Your task to perform on an android device: Open calendar and show me the fourth week of next month Image 0: 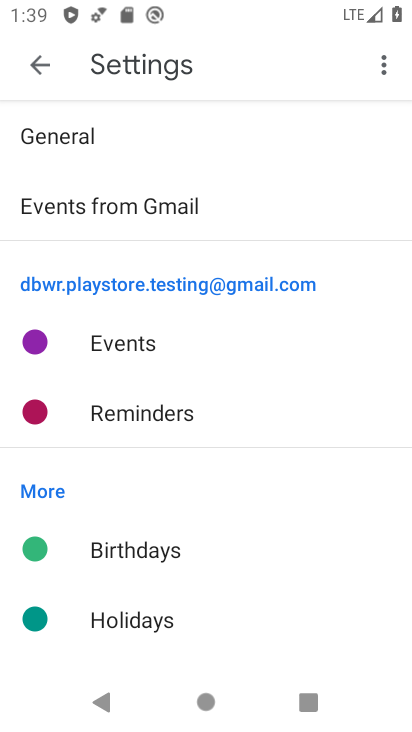
Step 0: press home button
Your task to perform on an android device: Open calendar and show me the fourth week of next month Image 1: 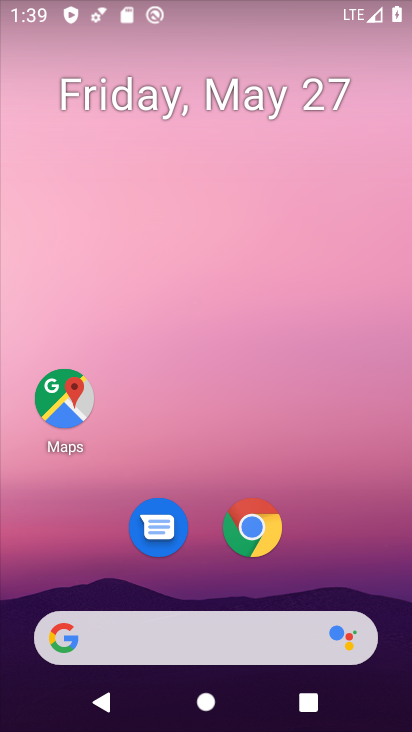
Step 1: drag from (232, 661) to (219, 1)
Your task to perform on an android device: Open calendar and show me the fourth week of next month Image 2: 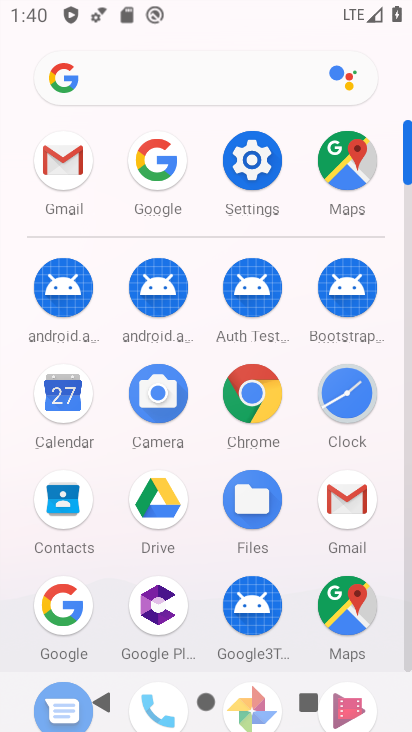
Step 2: click (60, 399)
Your task to perform on an android device: Open calendar and show me the fourth week of next month Image 3: 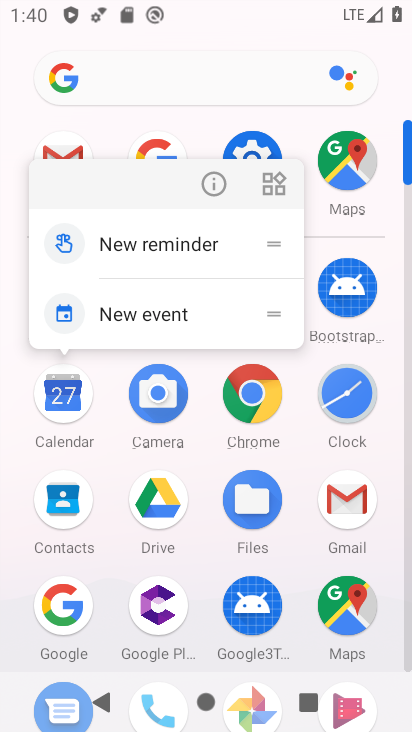
Step 3: click (59, 400)
Your task to perform on an android device: Open calendar and show me the fourth week of next month Image 4: 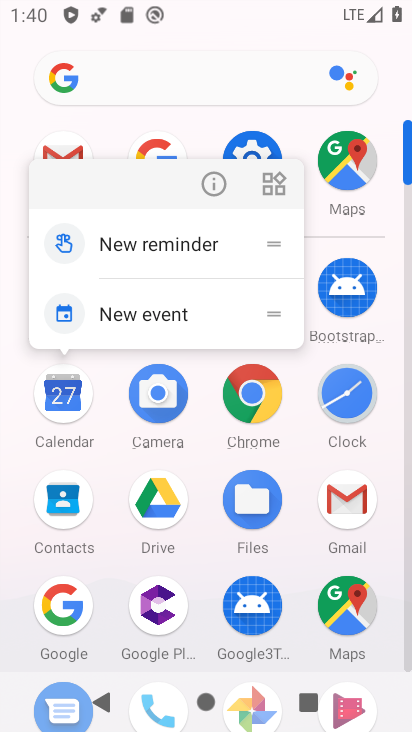
Step 4: click (49, 394)
Your task to perform on an android device: Open calendar and show me the fourth week of next month Image 5: 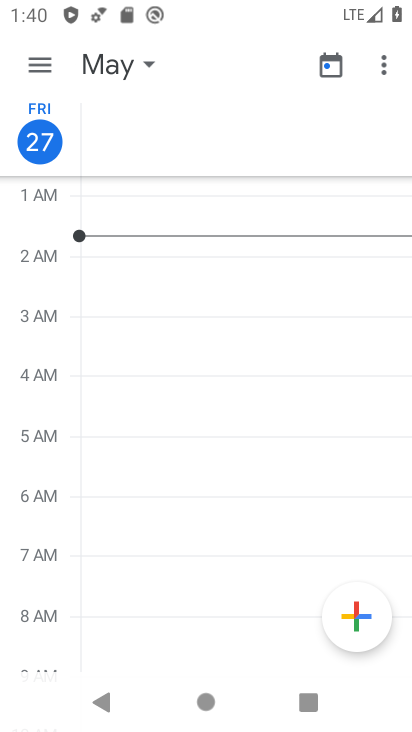
Step 5: click (97, 74)
Your task to perform on an android device: Open calendar and show me the fourth week of next month Image 6: 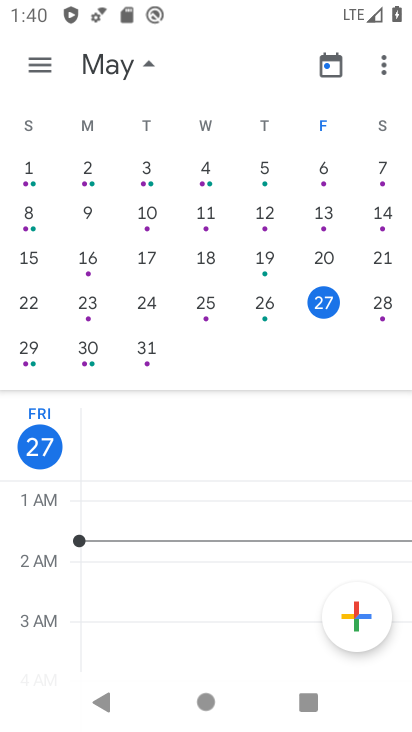
Step 6: drag from (333, 234) to (0, 292)
Your task to perform on an android device: Open calendar and show me the fourth week of next month Image 7: 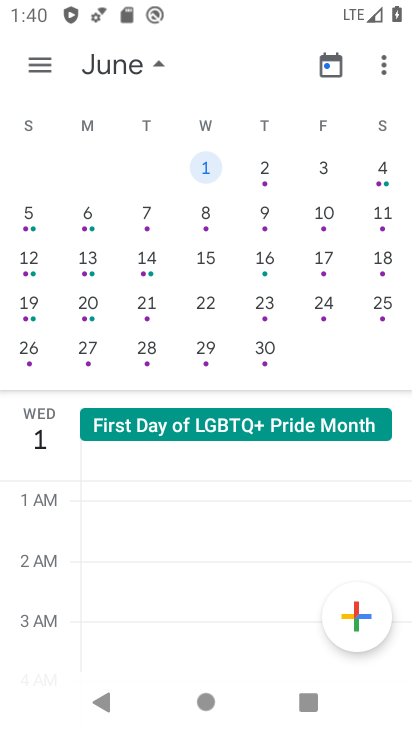
Step 7: click (29, 300)
Your task to perform on an android device: Open calendar and show me the fourth week of next month Image 8: 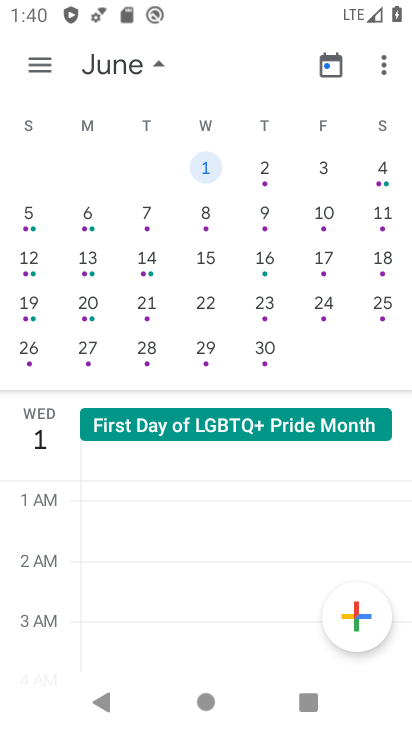
Step 8: click (29, 300)
Your task to perform on an android device: Open calendar and show me the fourth week of next month Image 9: 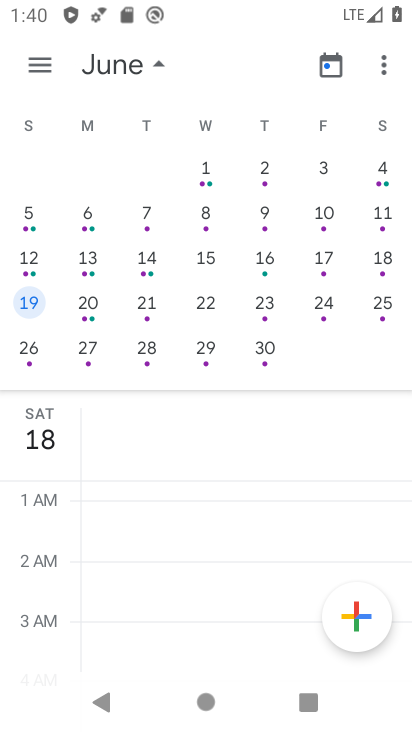
Step 9: click (29, 300)
Your task to perform on an android device: Open calendar and show me the fourth week of next month Image 10: 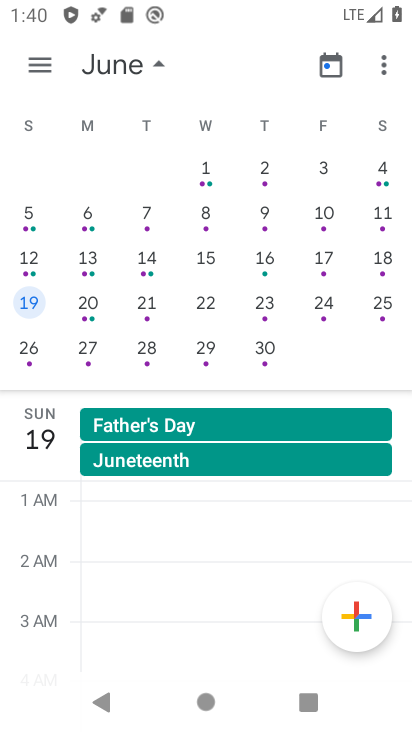
Step 10: click (29, 300)
Your task to perform on an android device: Open calendar and show me the fourth week of next month Image 11: 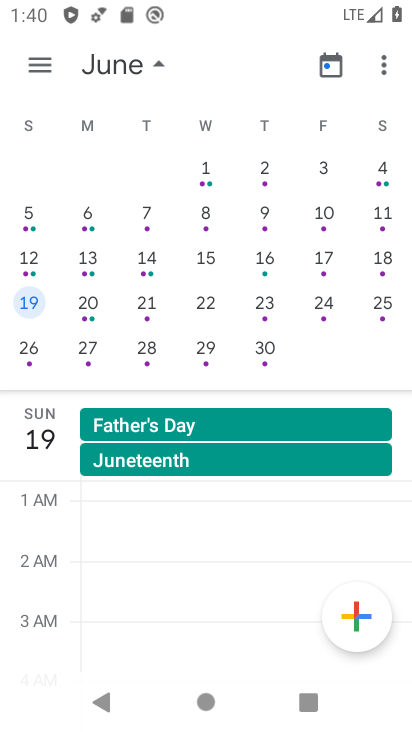
Step 11: task complete